Your task to perform on an android device: turn on location history Image 0: 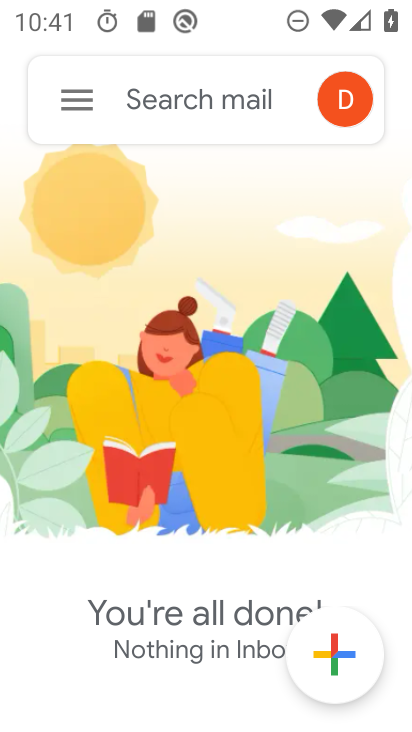
Step 0: press home button
Your task to perform on an android device: turn on location history Image 1: 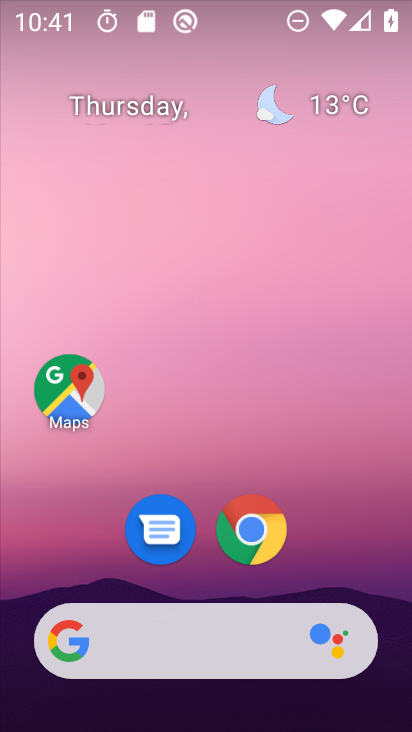
Step 1: drag from (312, 401) to (317, 122)
Your task to perform on an android device: turn on location history Image 2: 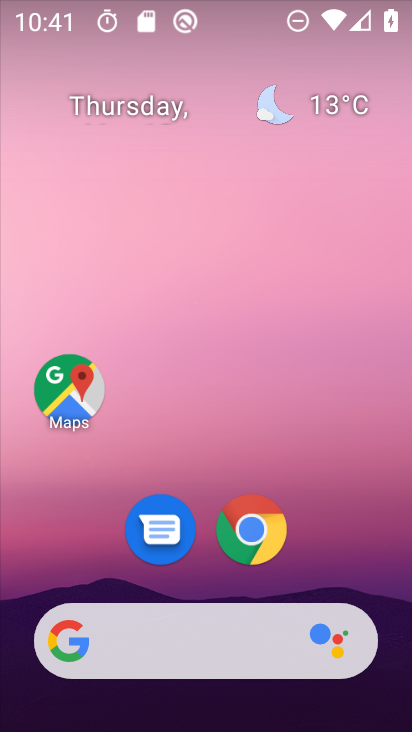
Step 2: drag from (328, 529) to (408, 120)
Your task to perform on an android device: turn on location history Image 3: 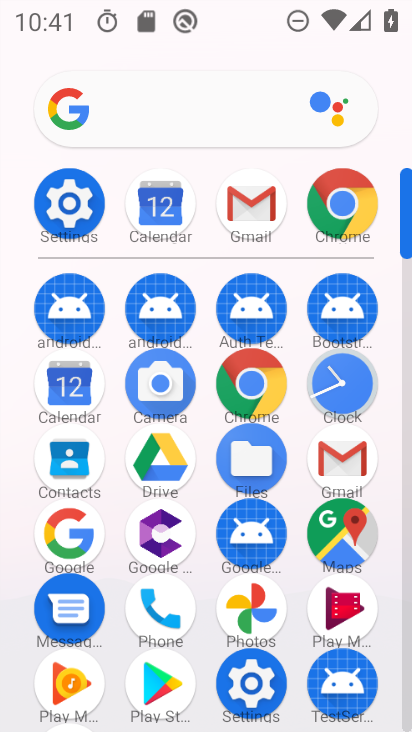
Step 3: click (79, 211)
Your task to perform on an android device: turn on location history Image 4: 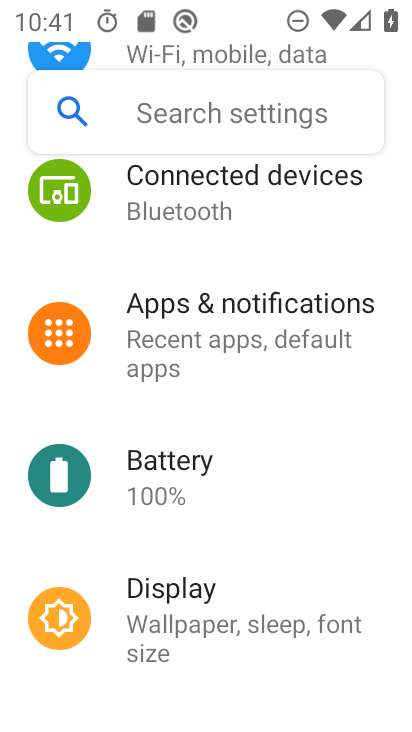
Step 4: drag from (266, 242) to (174, 650)
Your task to perform on an android device: turn on location history Image 5: 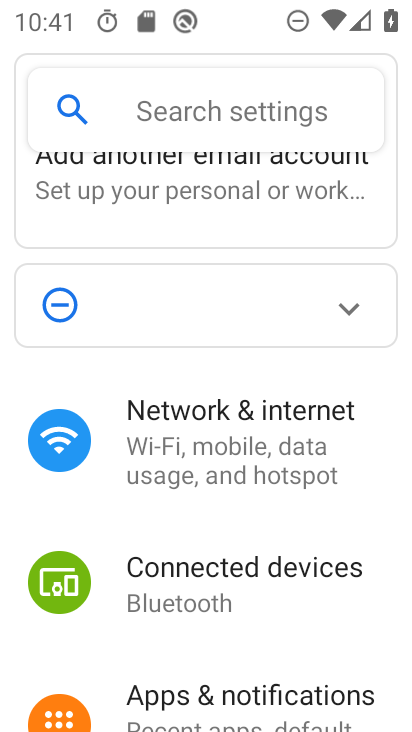
Step 5: drag from (311, 627) to (377, 272)
Your task to perform on an android device: turn on location history Image 6: 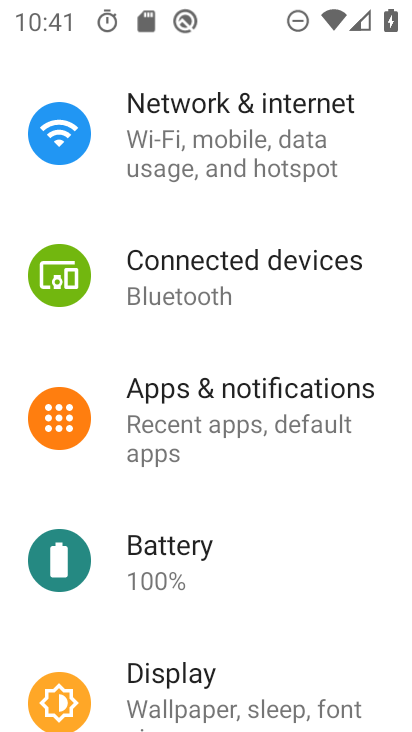
Step 6: drag from (322, 488) to (407, 251)
Your task to perform on an android device: turn on location history Image 7: 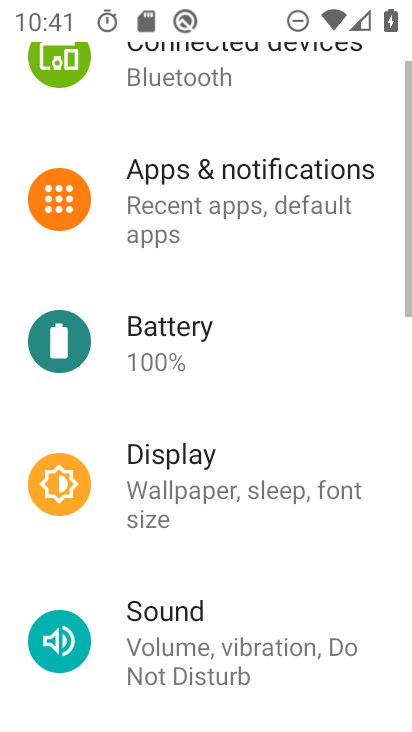
Step 7: drag from (304, 493) to (359, 106)
Your task to perform on an android device: turn on location history Image 8: 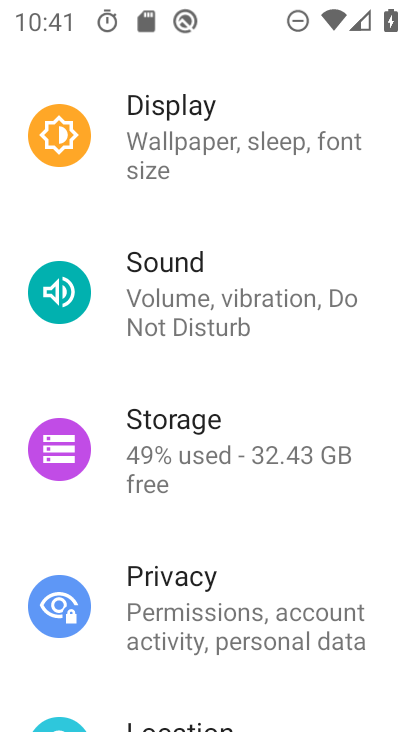
Step 8: drag from (268, 491) to (343, 61)
Your task to perform on an android device: turn on location history Image 9: 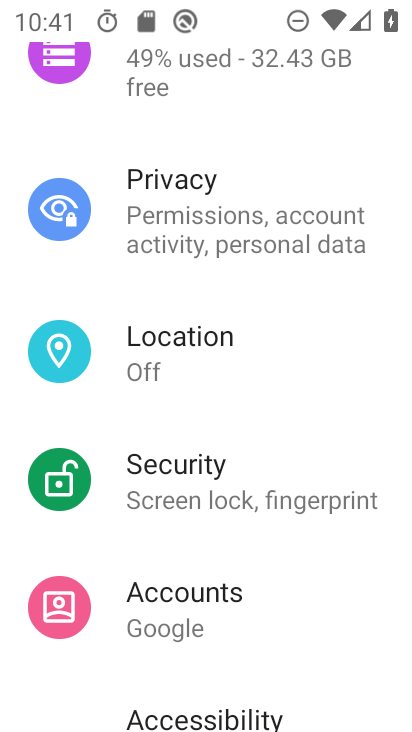
Step 9: click (237, 338)
Your task to perform on an android device: turn on location history Image 10: 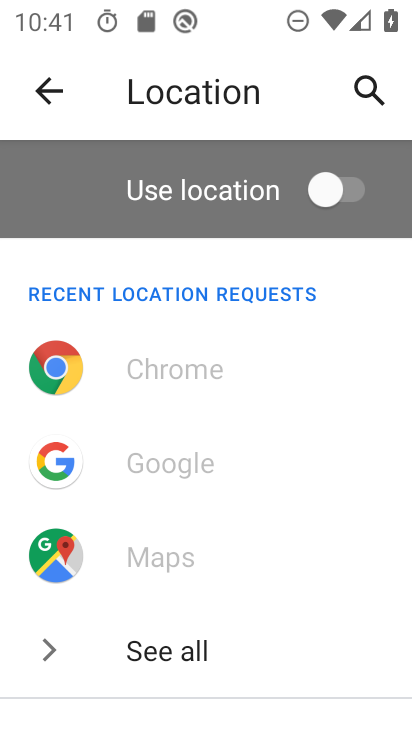
Step 10: drag from (290, 634) to (411, 218)
Your task to perform on an android device: turn on location history Image 11: 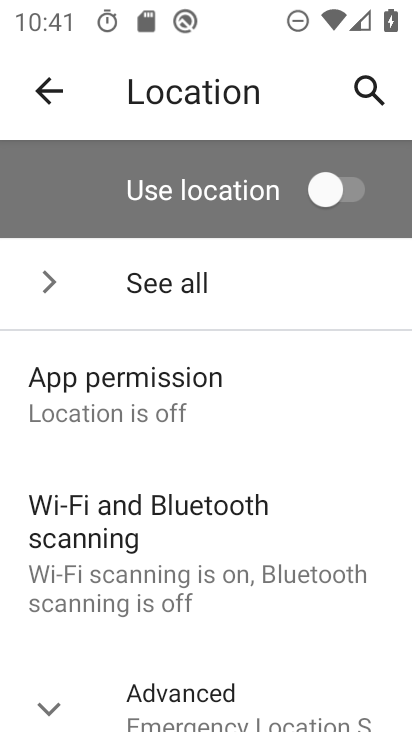
Step 11: drag from (273, 628) to (362, 221)
Your task to perform on an android device: turn on location history Image 12: 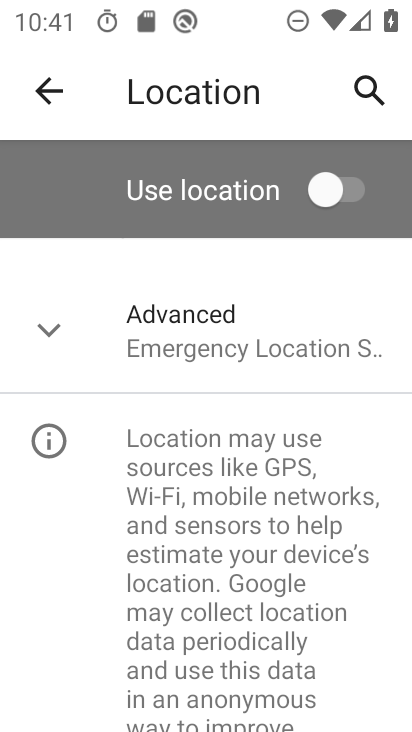
Step 12: click (289, 339)
Your task to perform on an android device: turn on location history Image 13: 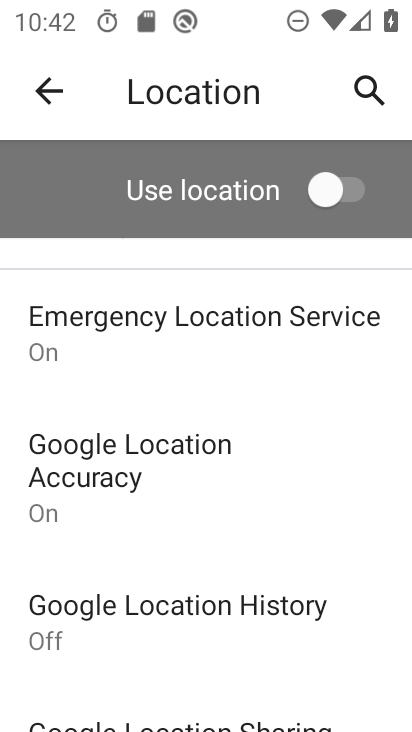
Step 13: click (201, 591)
Your task to perform on an android device: turn on location history Image 14: 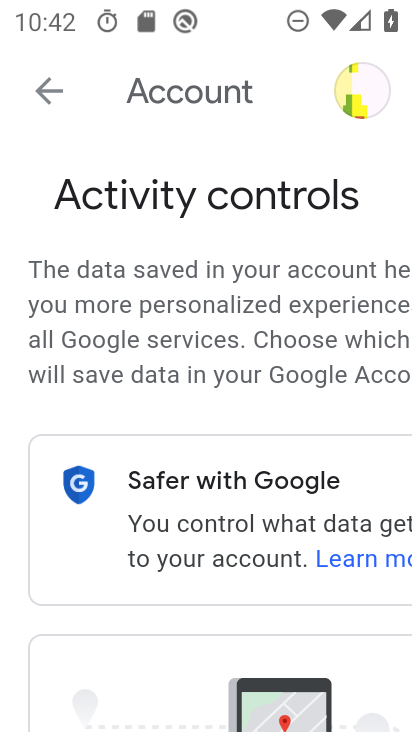
Step 14: task complete